Your task to perform on an android device: Open Yahoo.com Image 0: 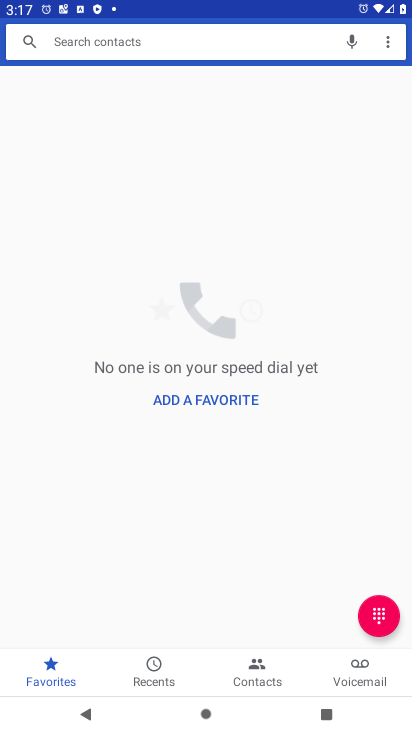
Step 0: press home button
Your task to perform on an android device: Open Yahoo.com Image 1: 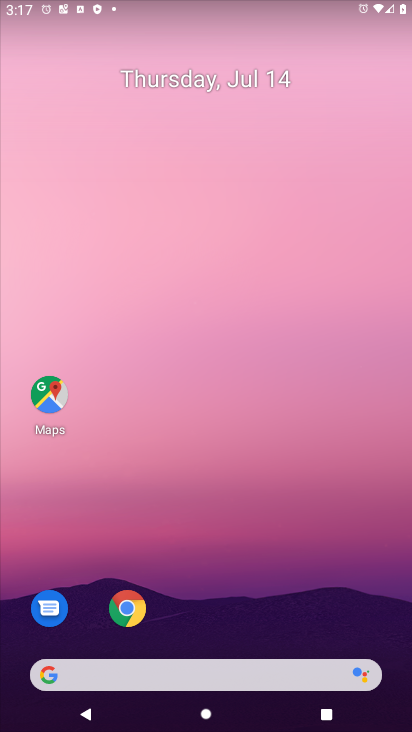
Step 1: click (128, 609)
Your task to perform on an android device: Open Yahoo.com Image 2: 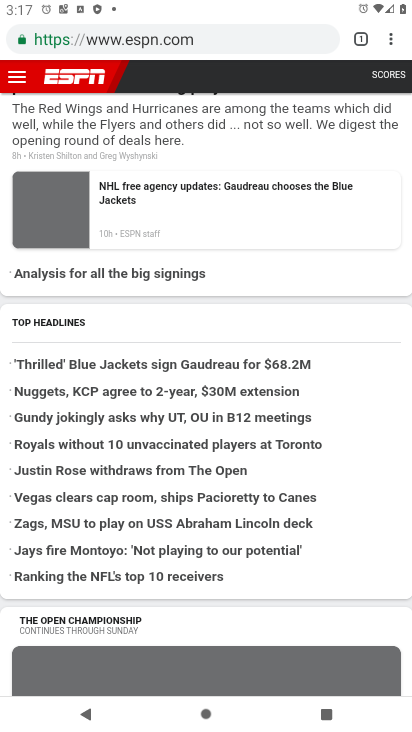
Step 2: click (239, 43)
Your task to perform on an android device: Open Yahoo.com Image 3: 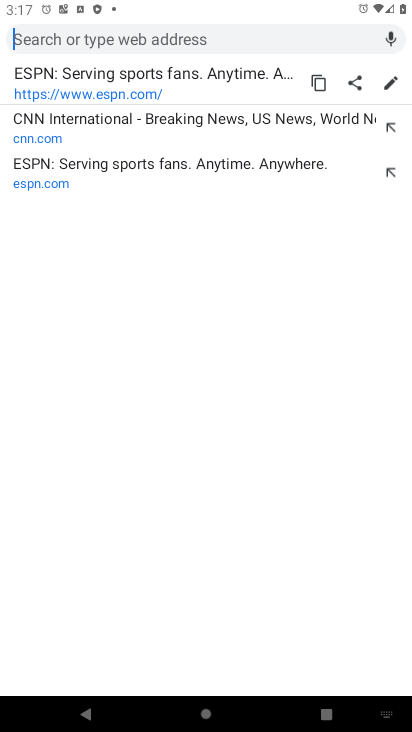
Step 3: type "Yahoo.com"
Your task to perform on an android device: Open Yahoo.com Image 4: 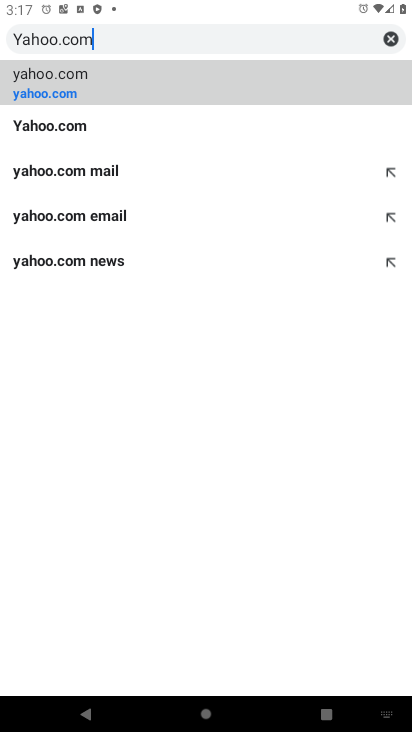
Step 4: click (32, 67)
Your task to perform on an android device: Open Yahoo.com Image 5: 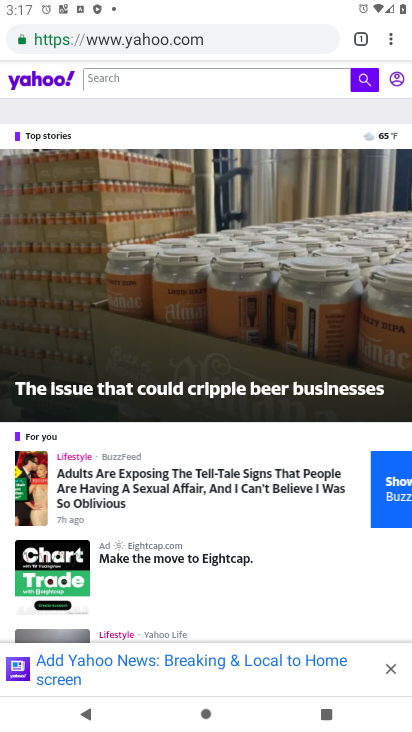
Step 5: task complete